Your task to perform on an android device: Play the last video I watched on Youtube Image 0: 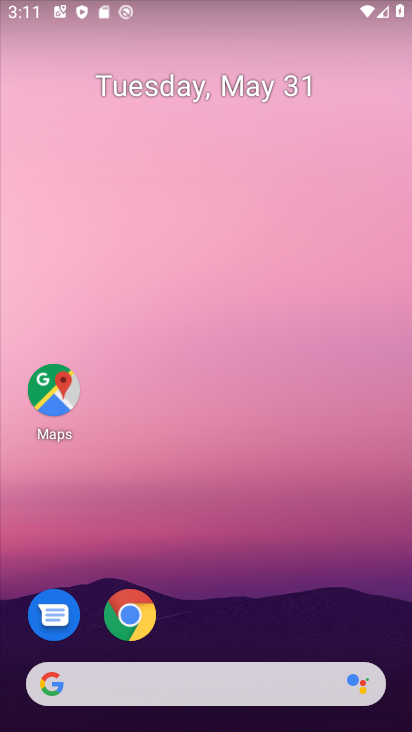
Step 0: drag from (290, 712) to (180, 46)
Your task to perform on an android device: Play the last video I watched on Youtube Image 1: 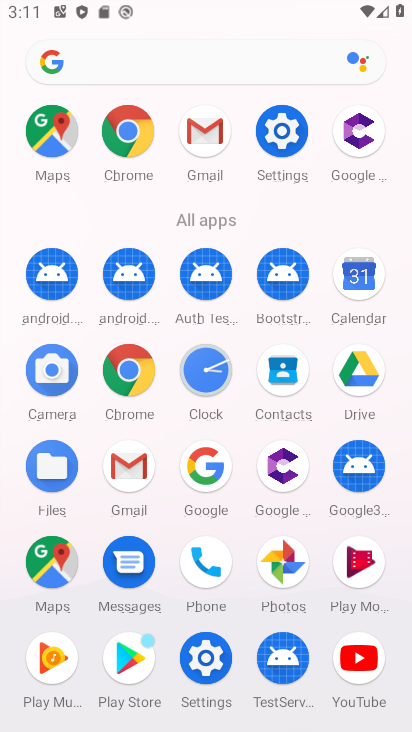
Step 1: click (359, 650)
Your task to perform on an android device: Play the last video I watched on Youtube Image 2: 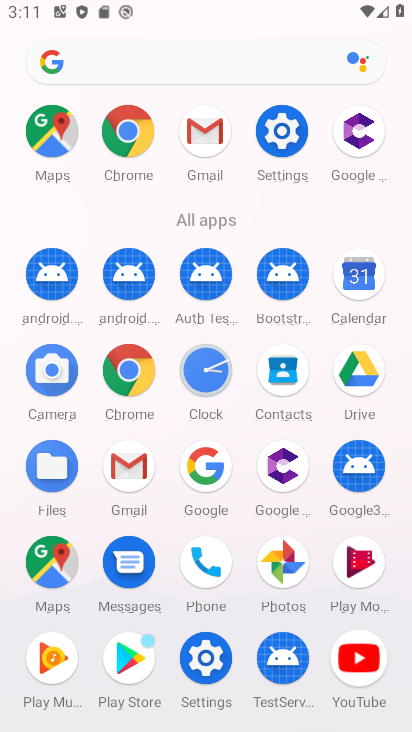
Step 2: click (359, 650)
Your task to perform on an android device: Play the last video I watched on Youtube Image 3: 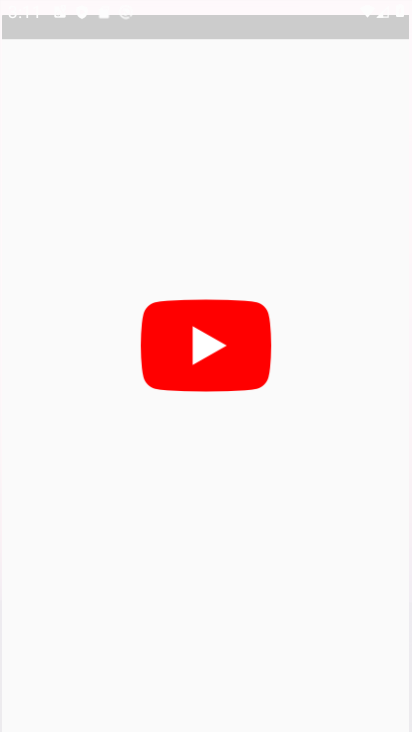
Step 3: click (360, 651)
Your task to perform on an android device: Play the last video I watched on Youtube Image 4: 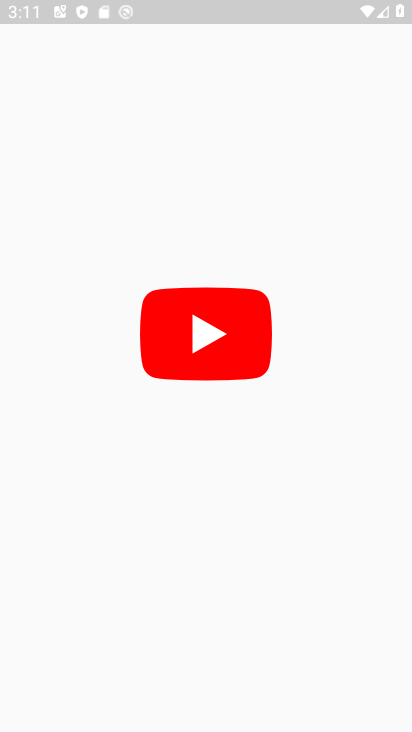
Step 4: click (360, 651)
Your task to perform on an android device: Play the last video I watched on Youtube Image 5: 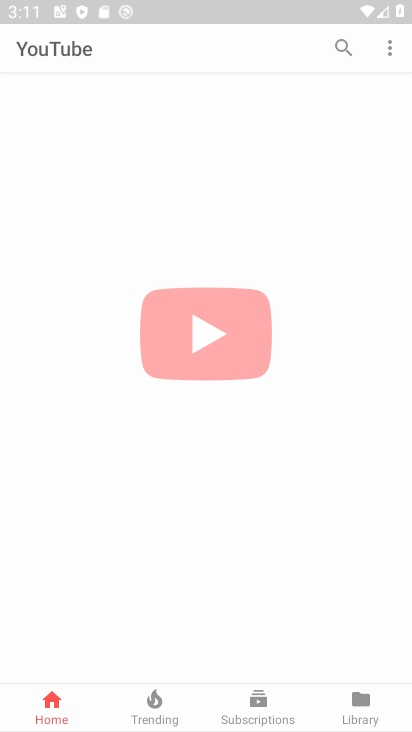
Step 5: click (360, 651)
Your task to perform on an android device: Play the last video I watched on Youtube Image 6: 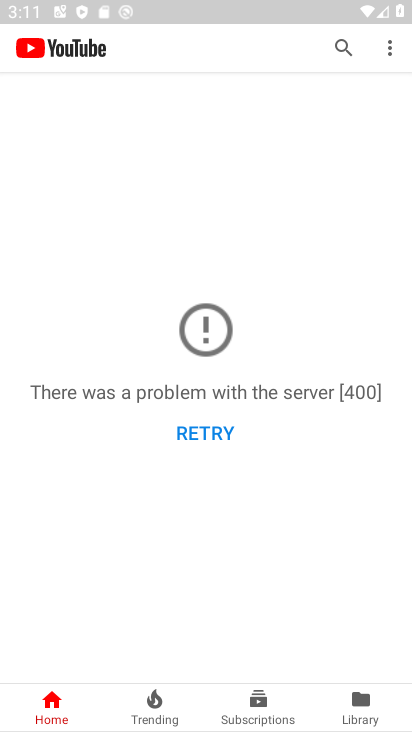
Step 6: task complete